Your task to perform on an android device: see tabs open on other devices in the chrome app Image 0: 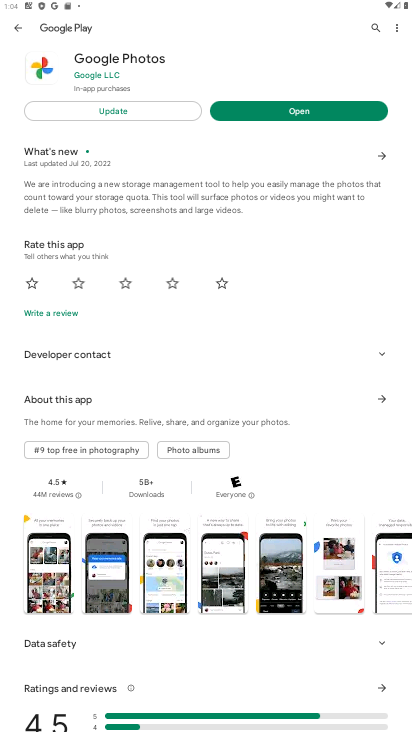
Step 0: press home button
Your task to perform on an android device: see tabs open on other devices in the chrome app Image 1: 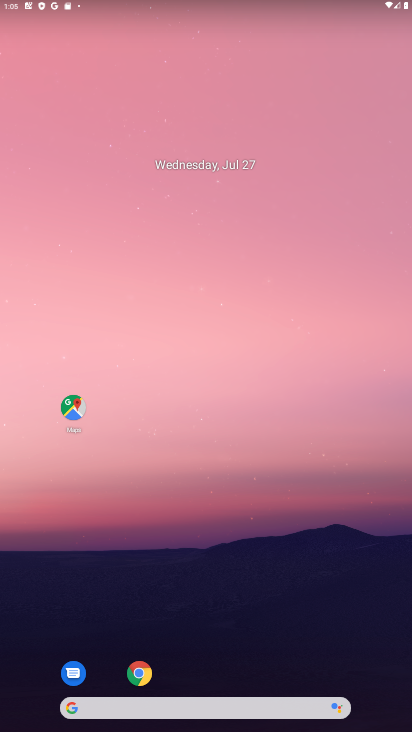
Step 1: click (139, 675)
Your task to perform on an android device: see tabs open on other devices in the chrome app Image 2: 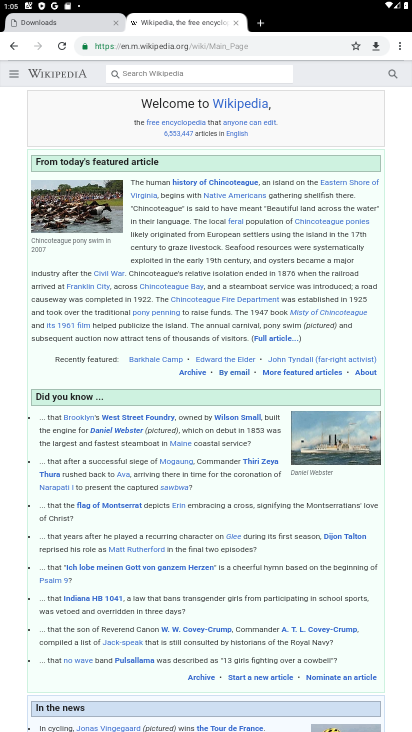
Step 2: click (398, 47)
Your task to perform on an android device: see tabs open on other devices in the chrome app Image 3: 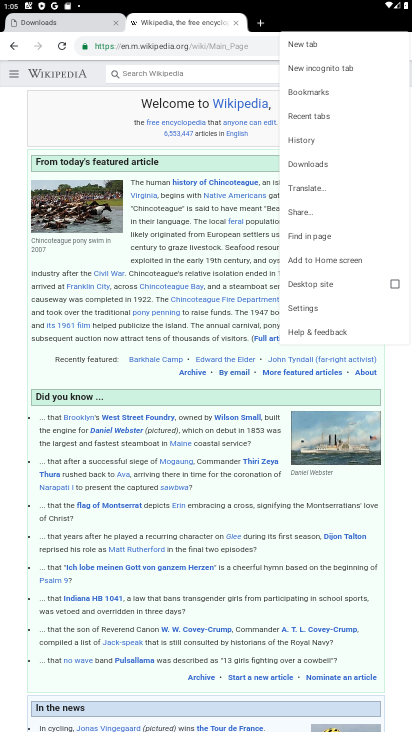
Step 3: click (310, 116)
Your task to perform on an android device: see tabs open on other devices in the chrome app Image 4: 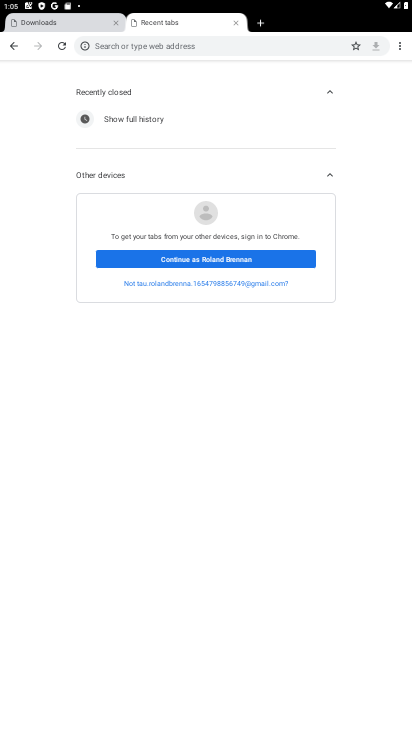
Step 4: click (197, 262)
Your task to perform on an android device: see tabs open on other devices in the chrome app Image 5: 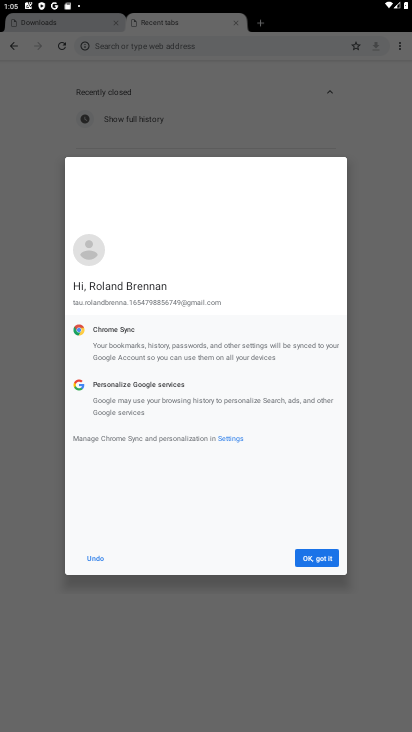
Step 5: click (306, 560)
Your task to perform on an android device: see tabs open on other devices in the chrome app Image 6: 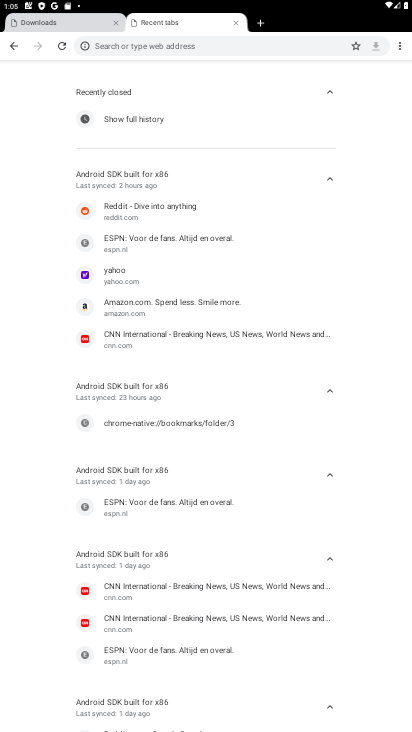
Step 6: task complete